Your task to perform on an android device: turn off airplane mode Image 0: 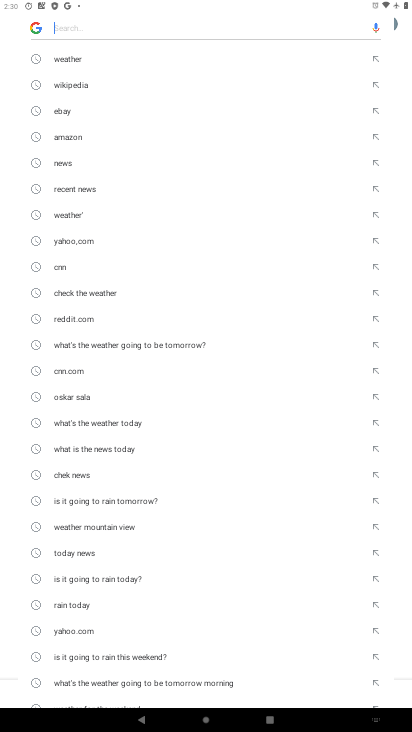
Step 0: press home button
Your task to perform on an android device: turn off airplane mode Image 1: 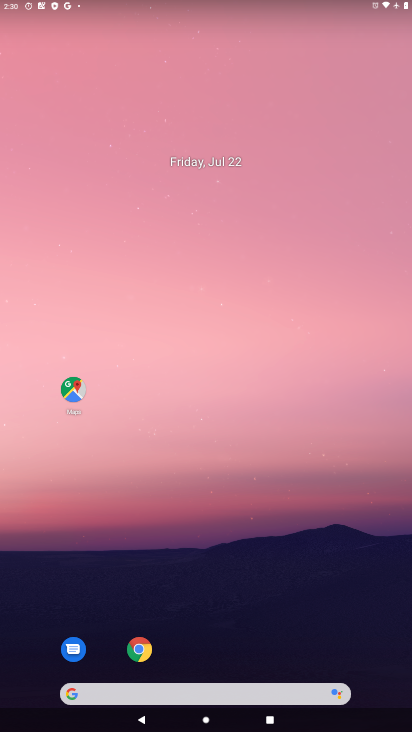
Step 1: drag from (247, 575) to (188, 4)
Your task to perform on an android device: turn off airplane mode Image 2: 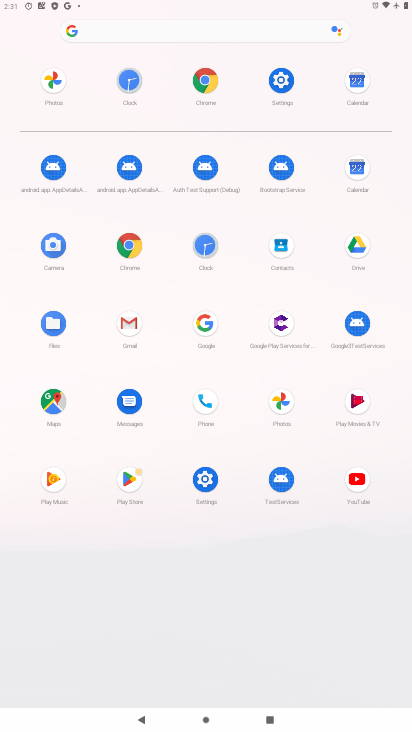
Step 2: click (282, 76)
Your task to perform on an android device: turn off airplane mode Image 3: 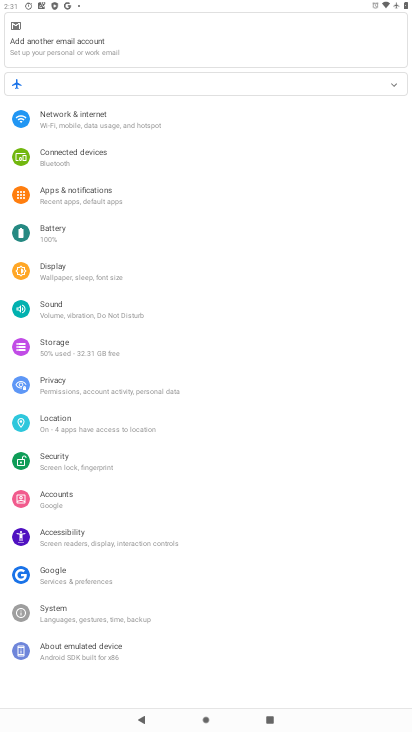
Step 3: click (74, 120)
Your task to perform on an android device: turn off airplane mode Image 4: 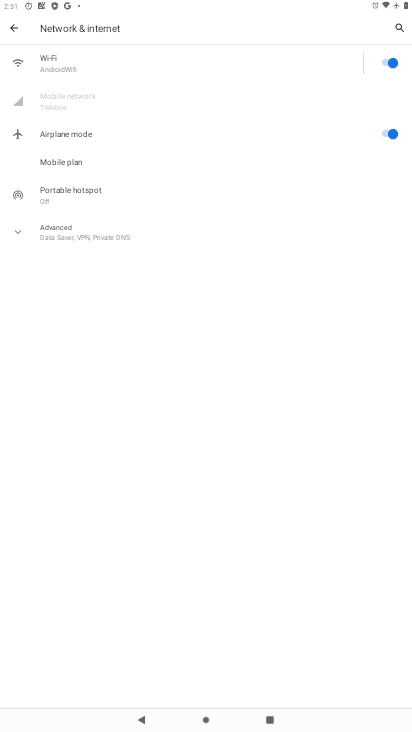
Step 4: click (383, 139)
Your task to perform on an android device: turn off airplane mode Image 5: 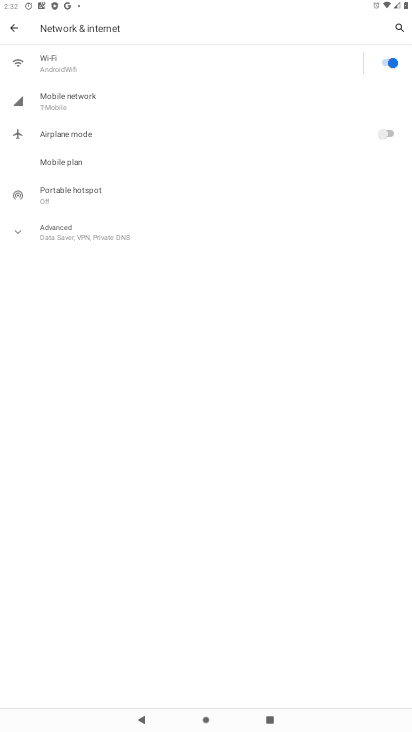
Step 5: task complete